Your task to perform on an android device: change notification settings in the gmail app Image 0: 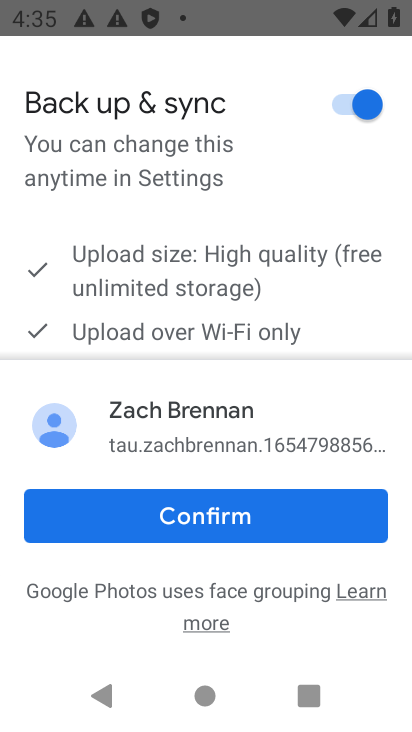
Step 0: press home button
Your task to perform on an android device: change notification settings in the gmail app Image 1: 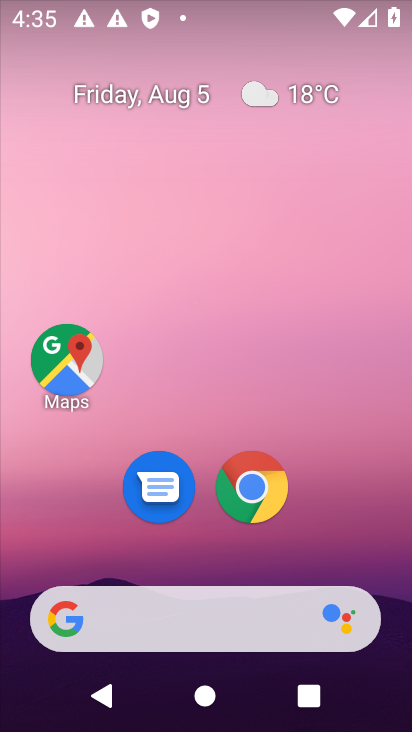
Step 1: drag from (208, 423) to (221, 113)
Your task to perform on an android device: change notification settings in the gmail app Image 2: 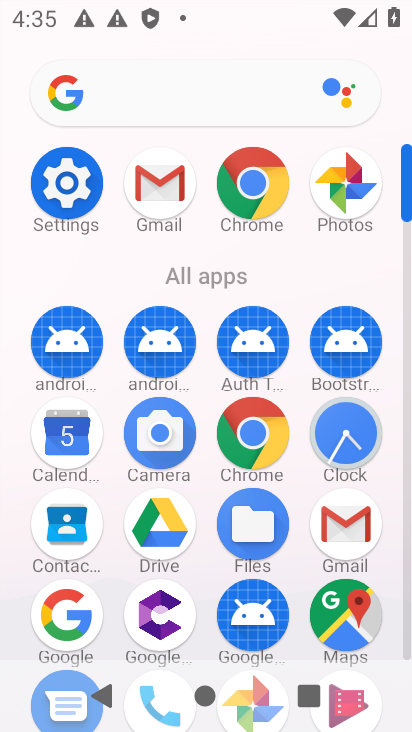
Step 2: click (349, 536)
Your task to perform on an android device: change notification settings in the gmail app Image 3: 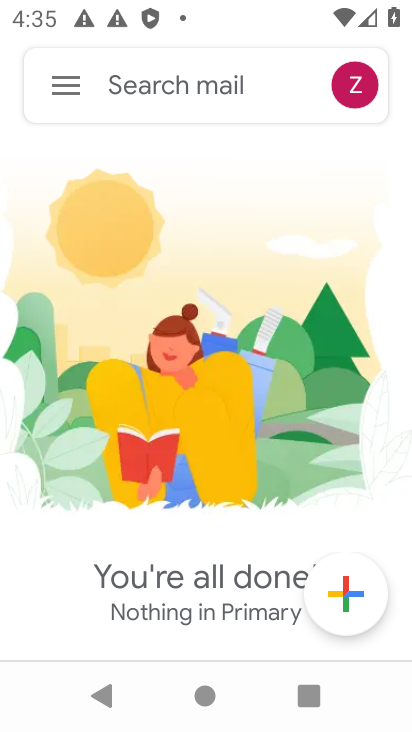
Step 3: press home button
Your task to perform on an android device: change notification settings in the gmail app Image 4: 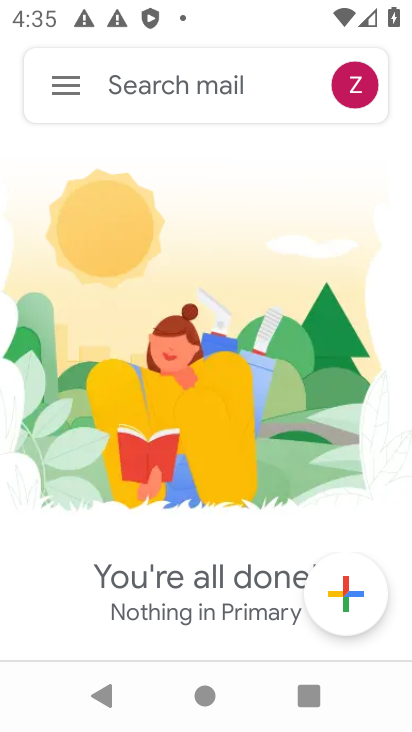
Step 4: press home button
Your task to perform on an android device: change notification settings in the gmail app Image 5: 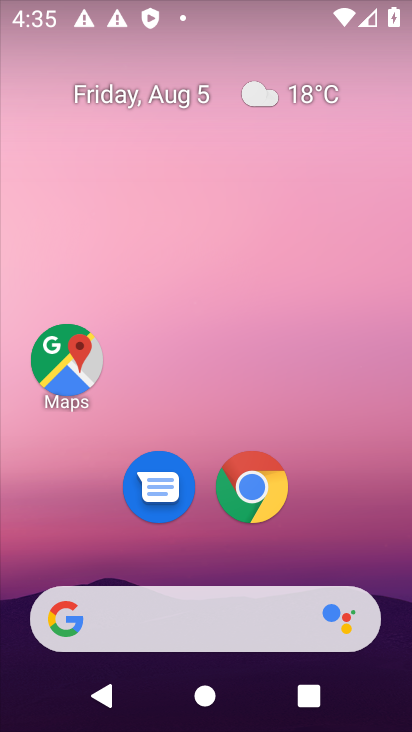
Step 5: drag from (311, 341) to (326, 101)
Your task to perform on an android device: change notification settings in the gmail app Image 6: 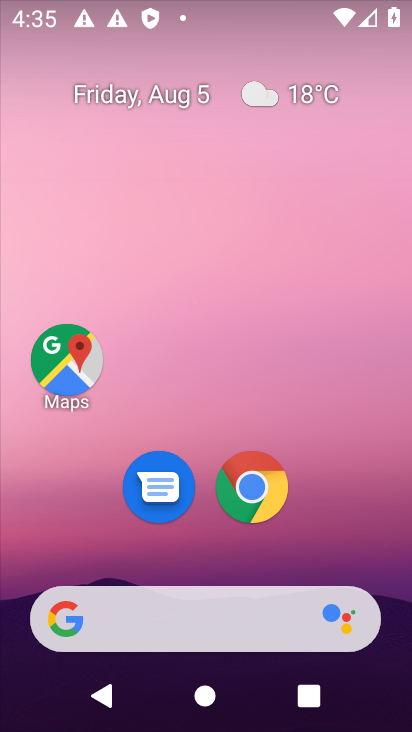
Step 6: drag from (225, 397) to (238, 69)
Your task to perform on an android device: change notification settings in the gmail app Image 7: 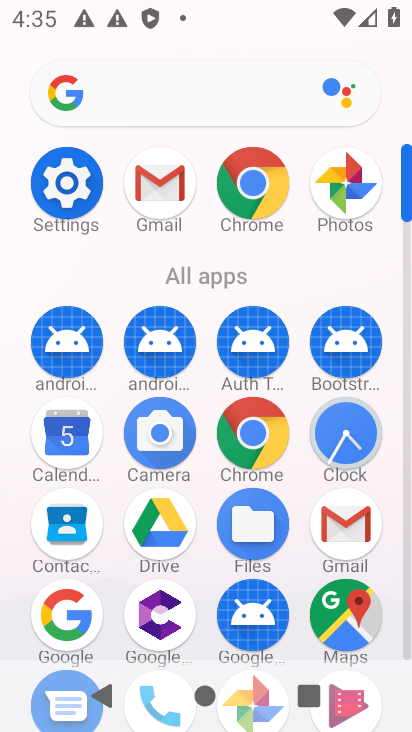
Step 7: click (331, 528)
Your task to perform on an android device: change notification settings in the gmail app Image 8: 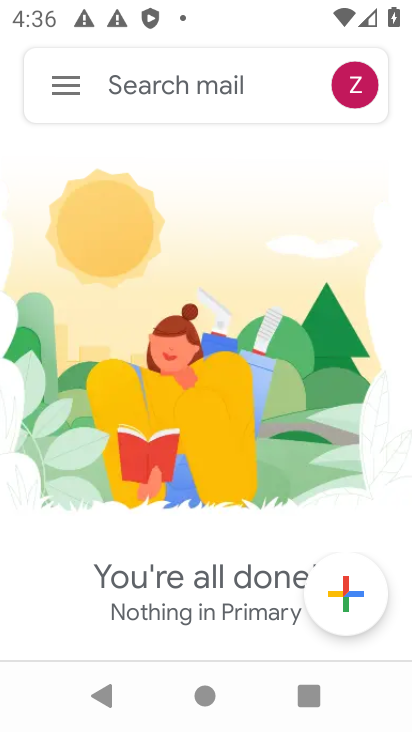
Step 8: click (40, 85)
Your task to perform on an android device: change notification settings in the gmail app Image 9: 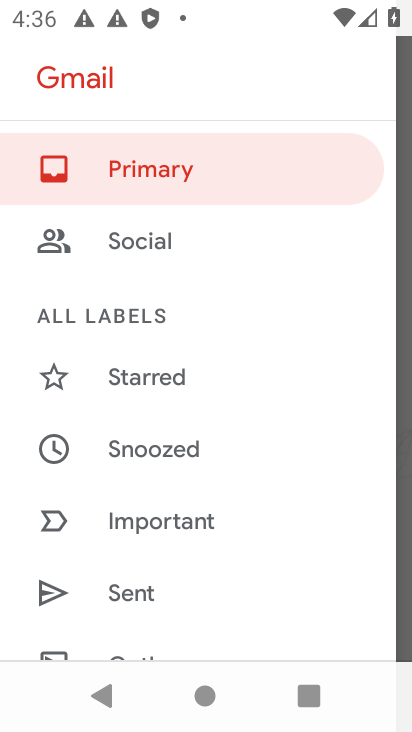
Step 9: drag from (203, 530) to (203, 237)
Your task to perform on an android device: change notification settings in the gmail app Image 10: 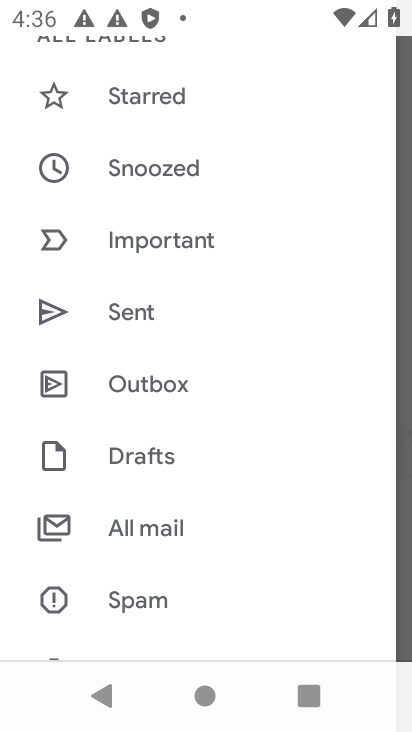
Step 10: drag from (218, 534) to (231, 278)
Your task to perform on an android device: change notification settings in the gmail app Image 11: 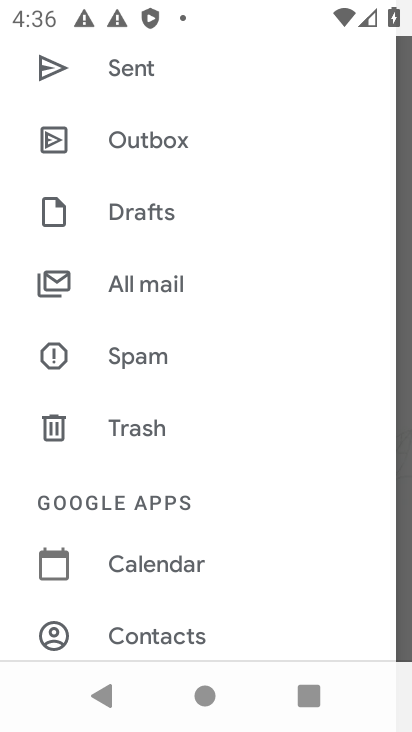
Step 11: drag from (303, 554) to (251, 263)
Your task to perform on an android device: change notification settings in the gmail app Image 12: 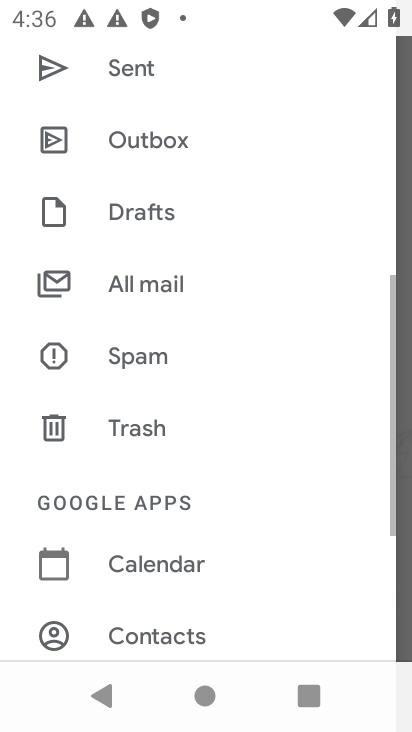
Step 12: drag from (236, 514) to (264, 247)
Your task to perform on an android device: change notification settings in the gmail app Image 13: 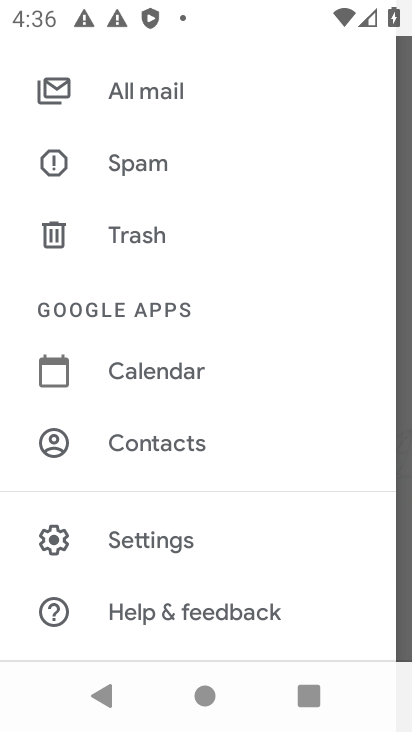
Step 13: click (169, 537)
Your task to perform on an android device: change notification settings in the gmail app Image 14: 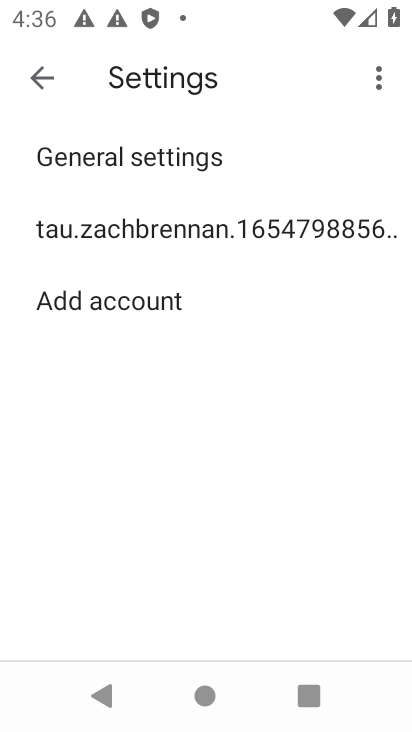
Step 14: task complete